Your task to perform on an android device: Open Reddit.com Image 0: 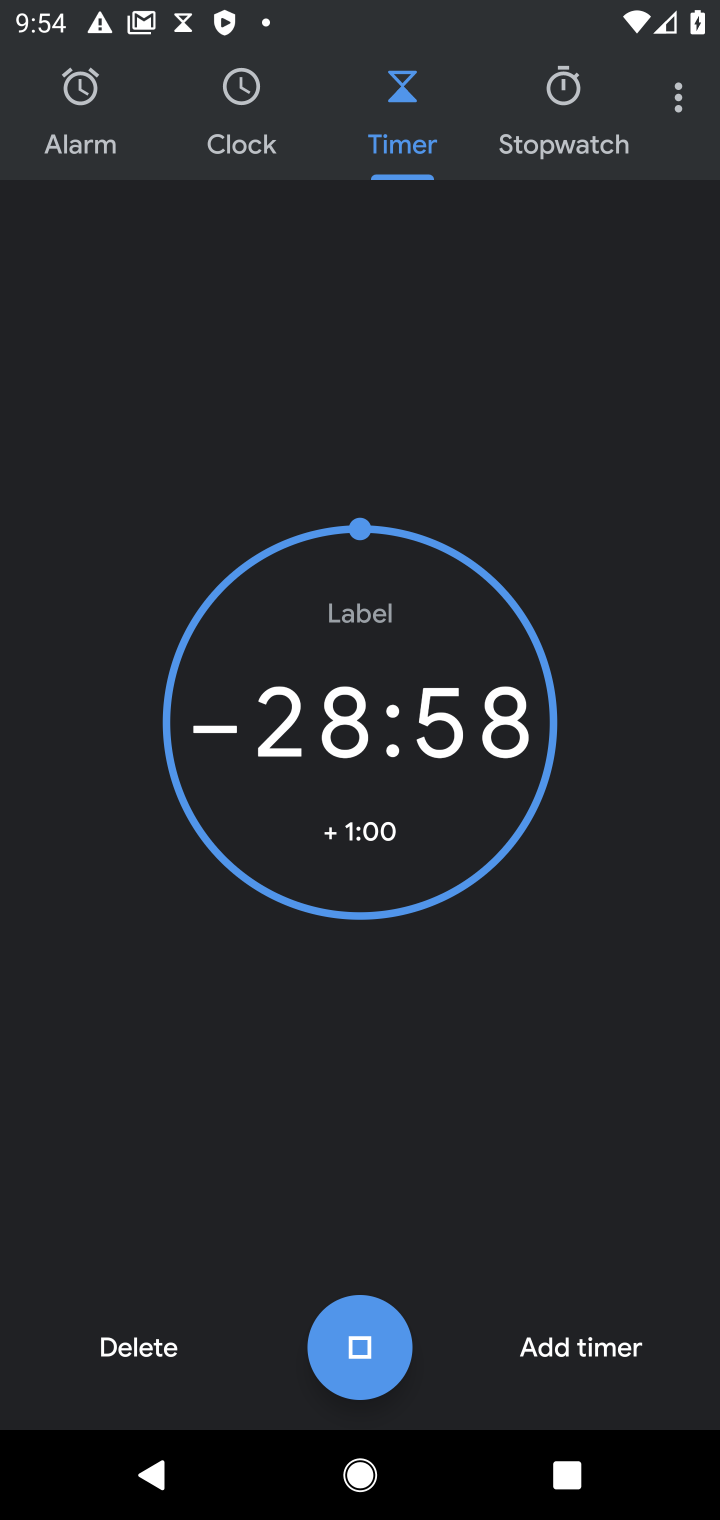
Step 0: press home button
Your task to perform on an android device: Open Reddit.com Image 1: 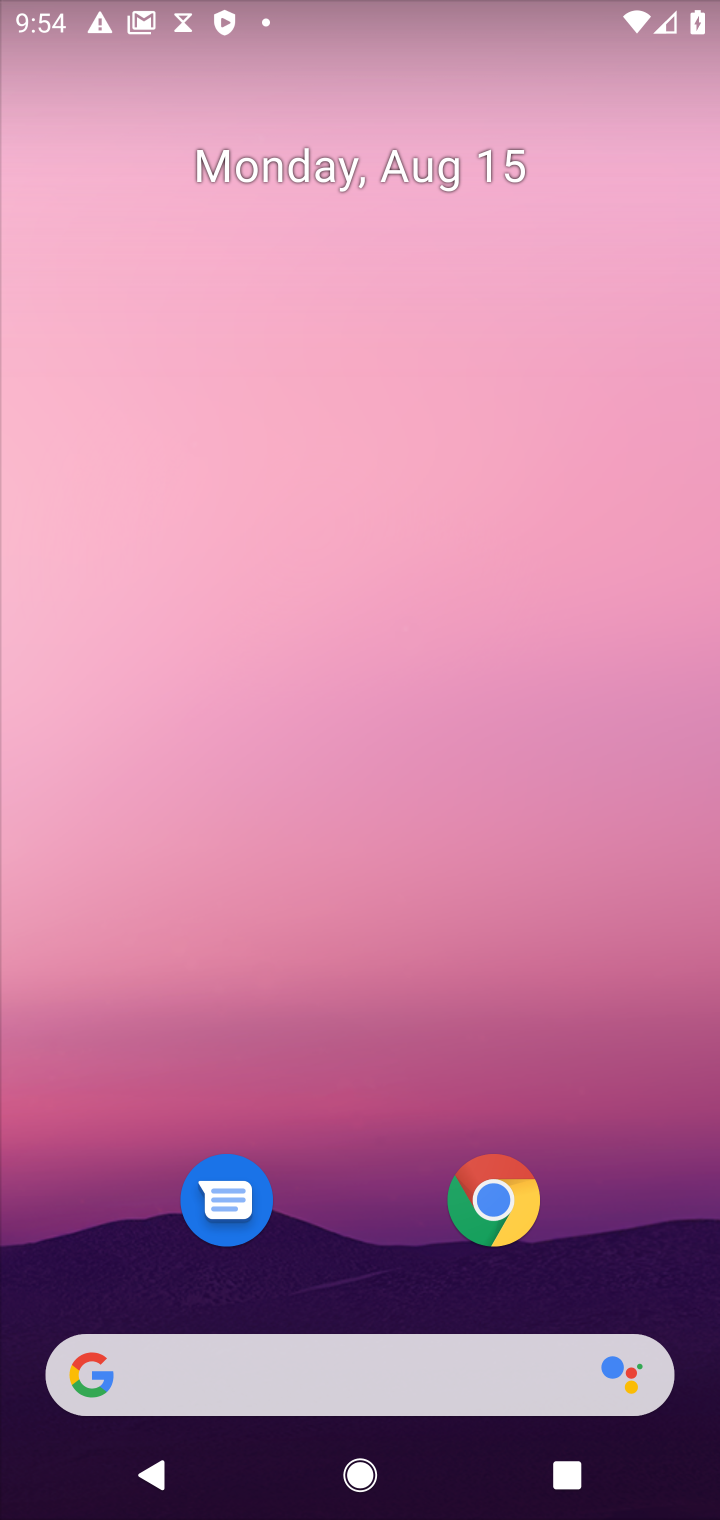
Step 1: click (489, 1211)
Your task to perform on an android device: Open Reddit.com Image 2: 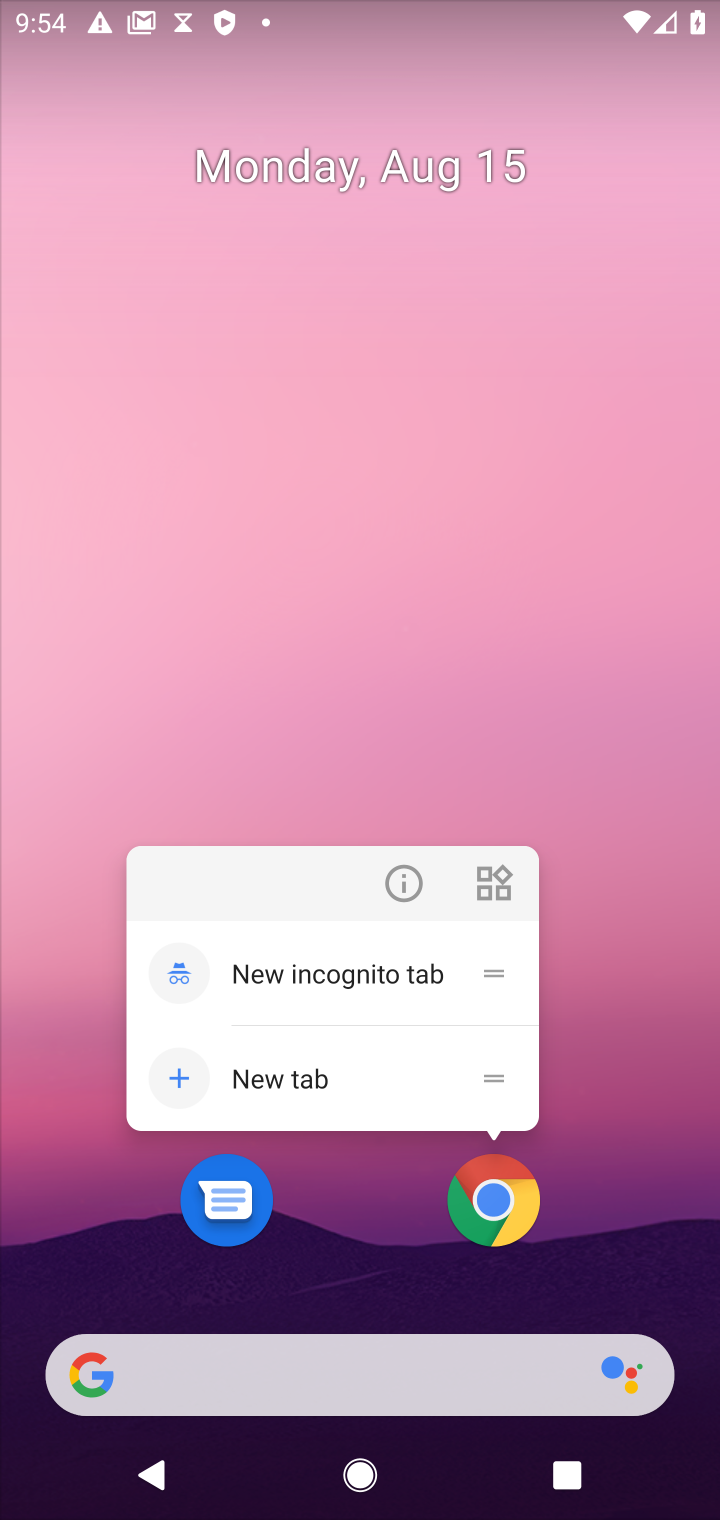
Step 2: click (489, 1211)
Your task to perform on an android device: Open Reddit.com Image 3: 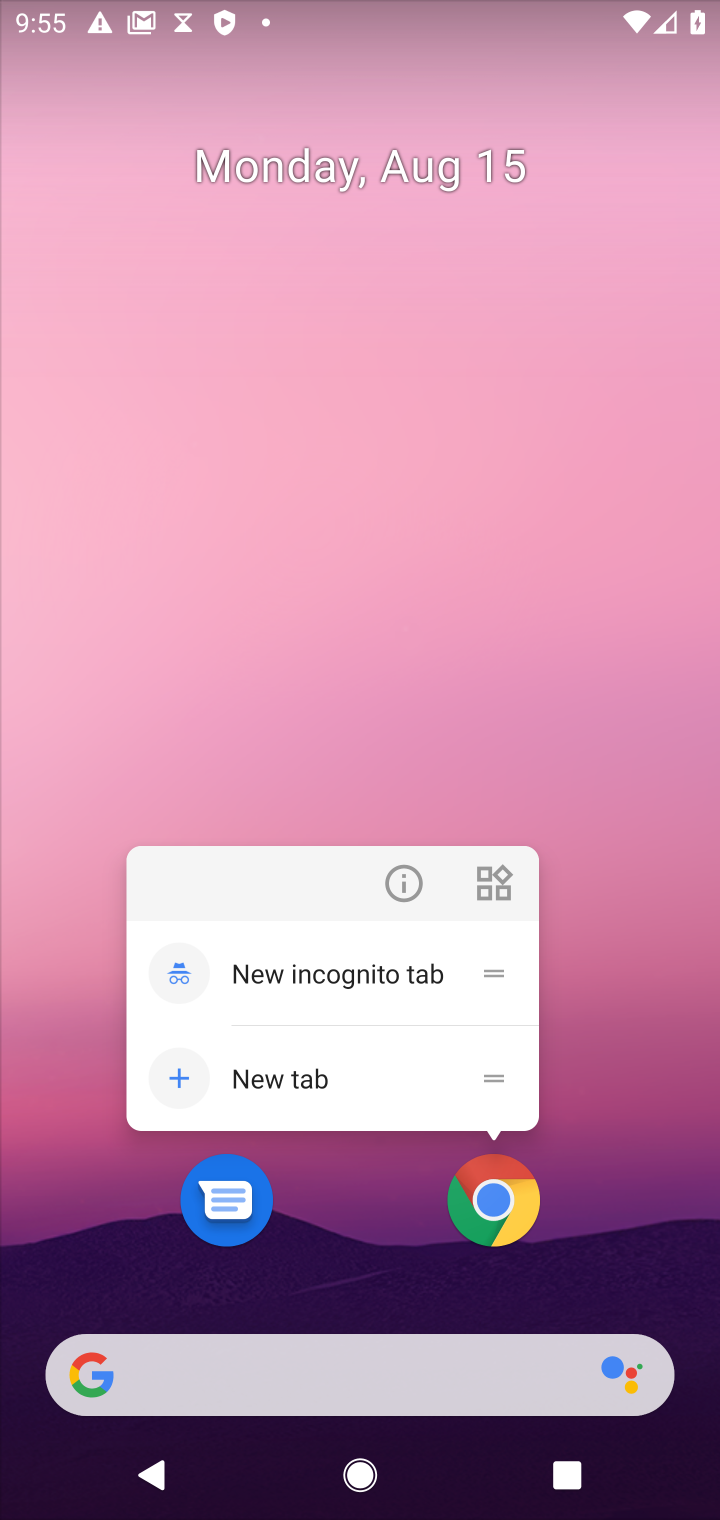
Step 3: click (489, 1211)
Your task to perform on an android device: Open Reddit.com Image 4: 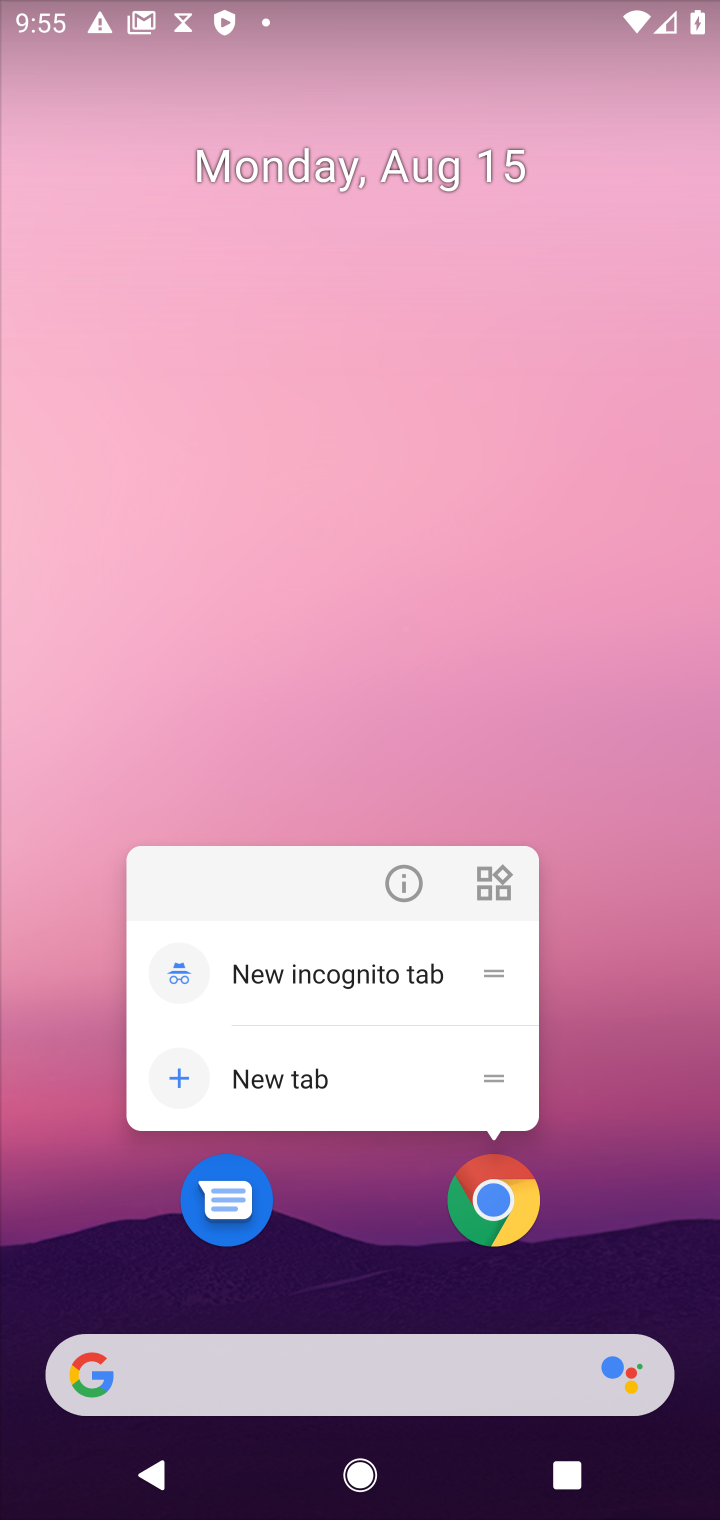
Step 4: click (468, 1194)
Your task to perform on an android device: Open Reddit.com Image 5: 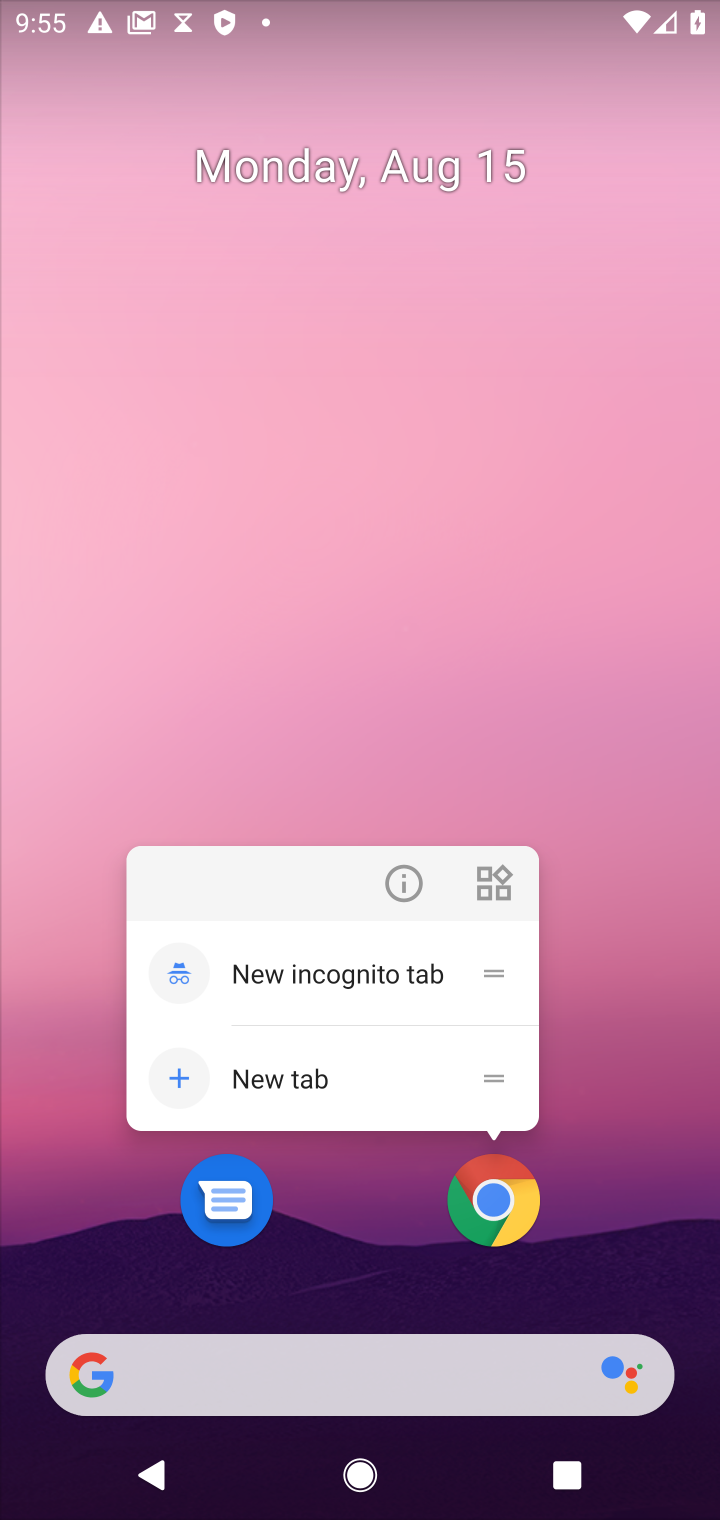
Step 5: click (489, 1217)
Your task to perform on an android device: Open Reddit.com Image 6: 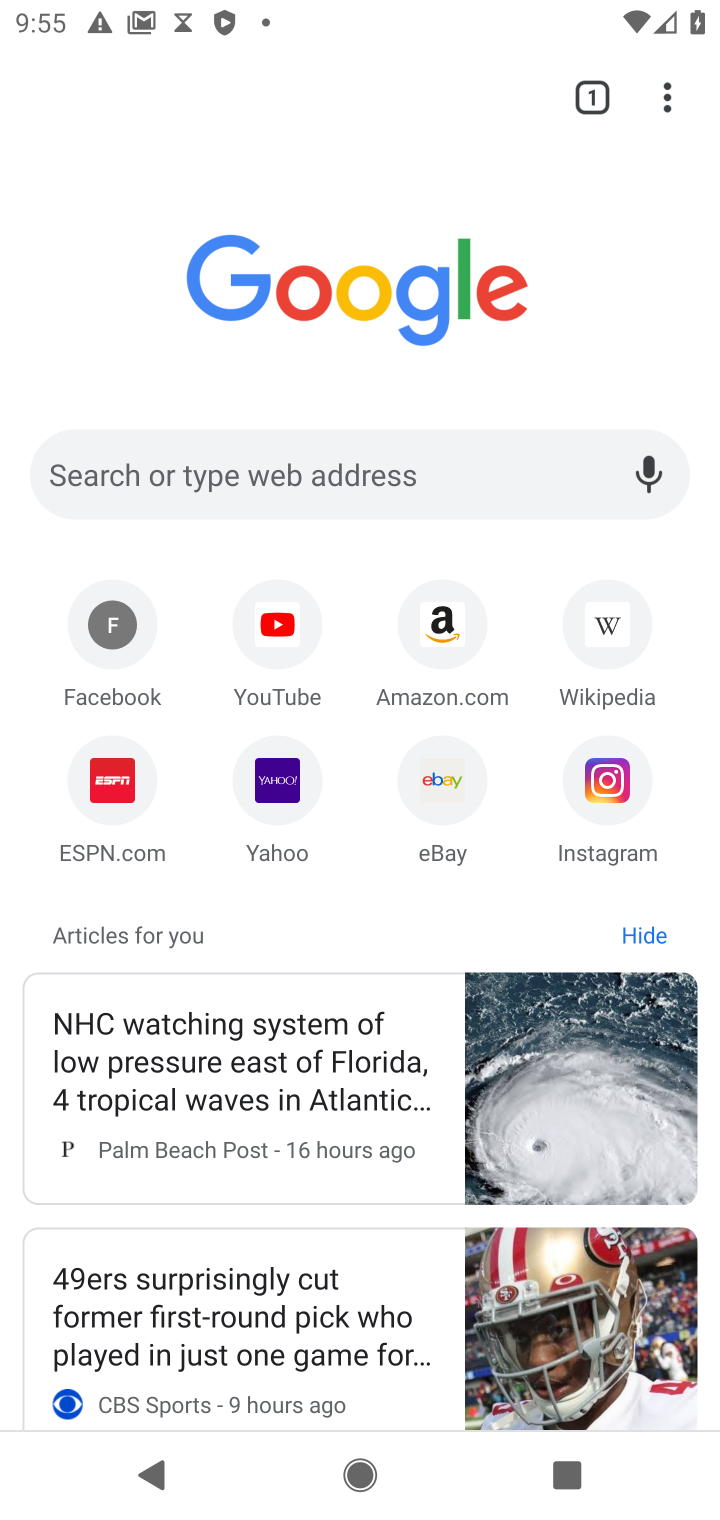
Step 6: click (255, 469)
Your task to perform on an android device: Open Reddit.com Image 7: 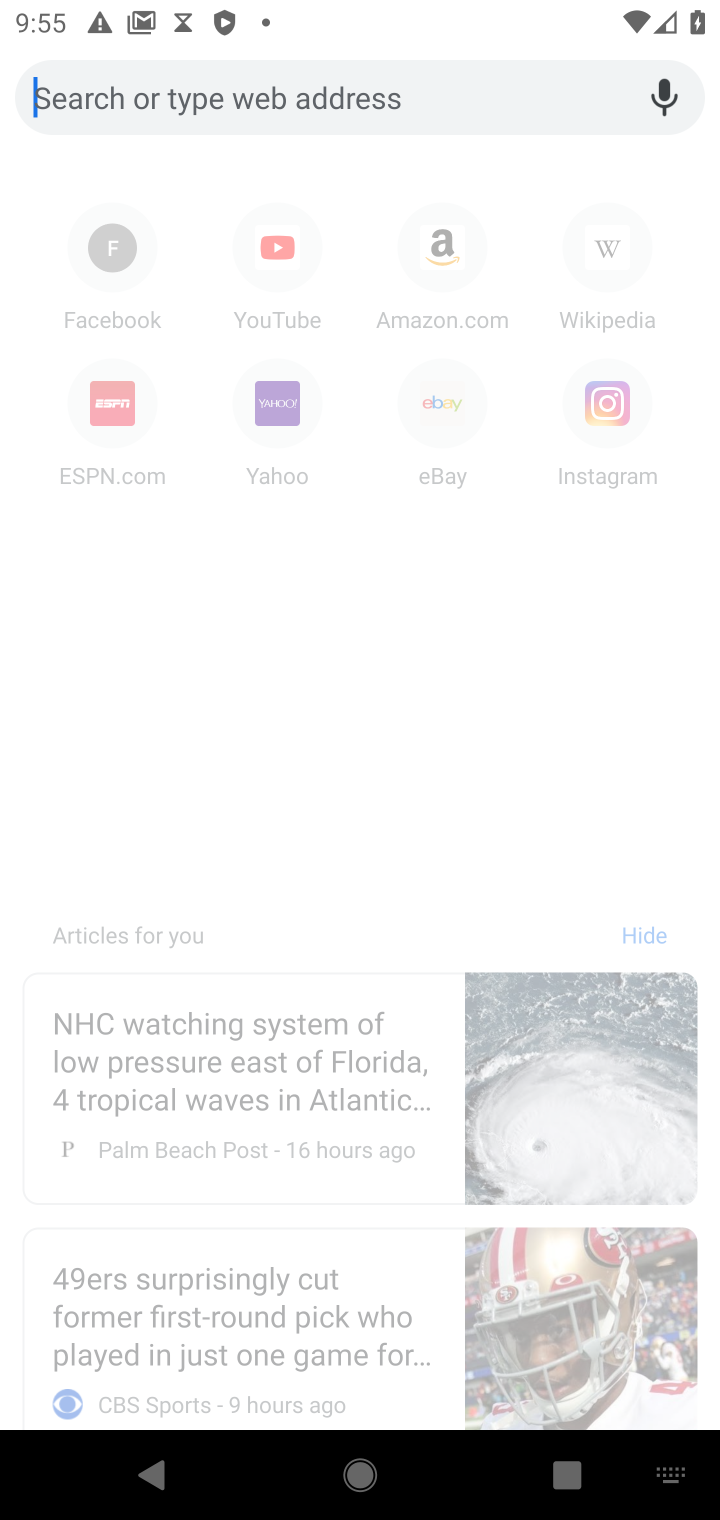
Step 7: type "Reddit.com"
Your task to perform on an android device: Open Reddit.com Image 8: 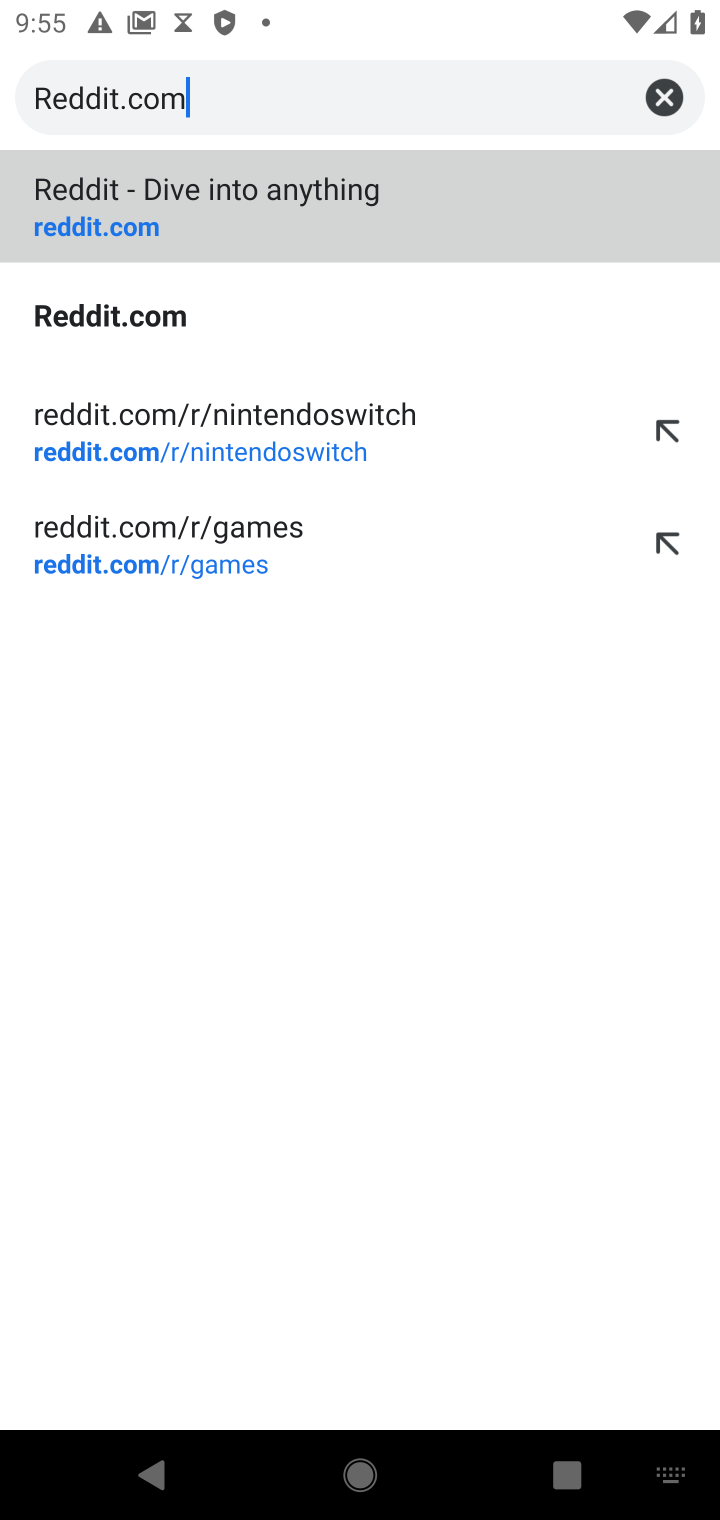
Step 8: click (354, 204)
Your task to perform on an android device: Open Reddit.com Image 9: 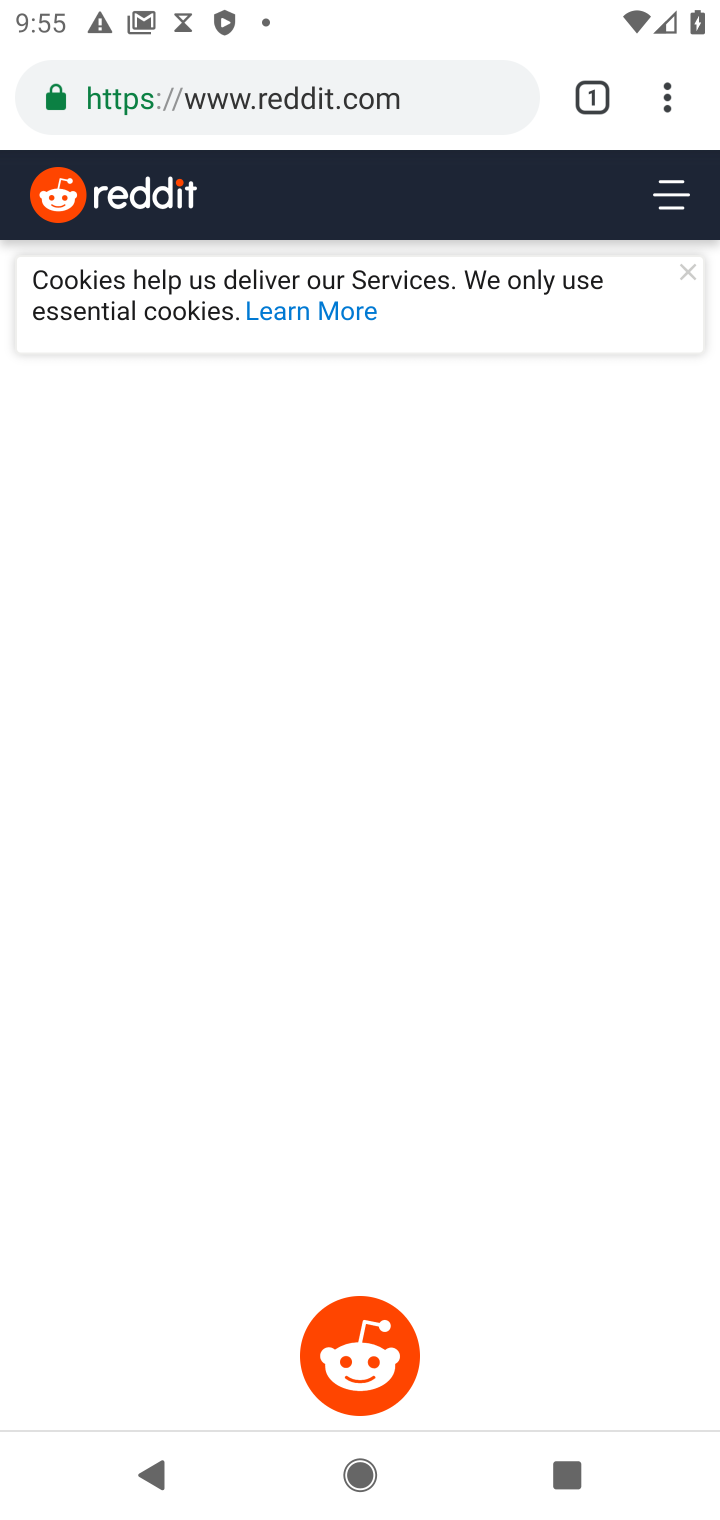
Step 9: task complete